Your task to perform on an android device: Go to Android settings Image 0: 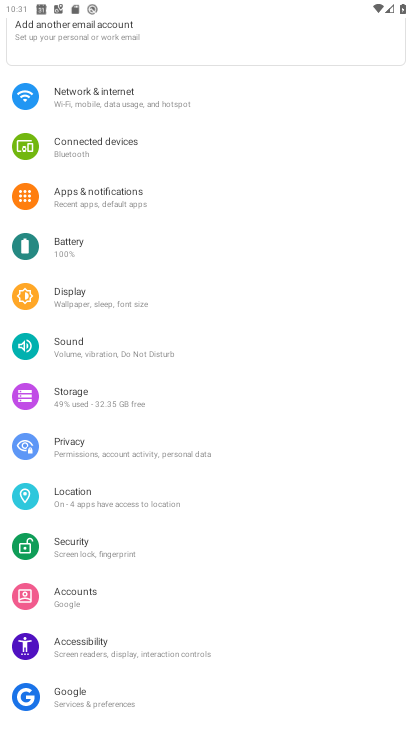
Step 0: press home button
Your task to perform on an android device: Go to Android settings Image 1: 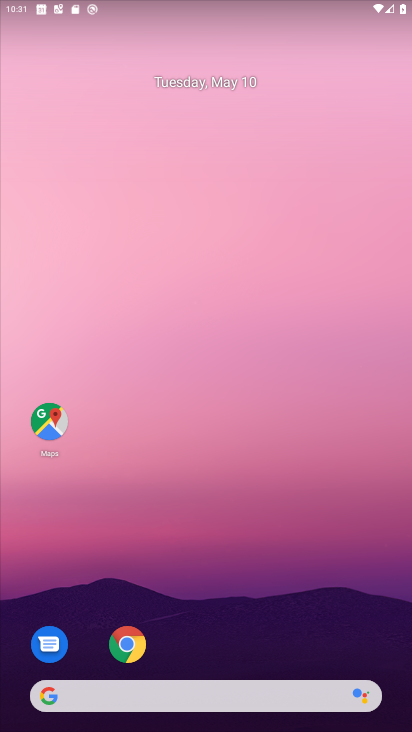
Step 1: drag from (317, 653) to (408, 267)
Your task to perform on an android device: Go to Android settings Image 2: 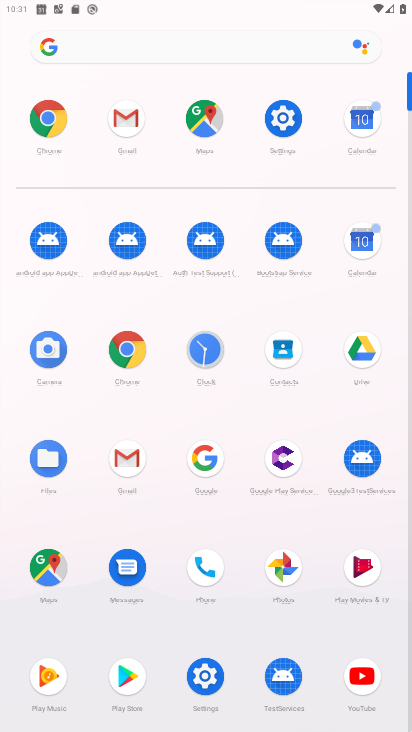
Step 2: click (290, 153)
Your task to perform on an android device: Go to Android settings Image 3: 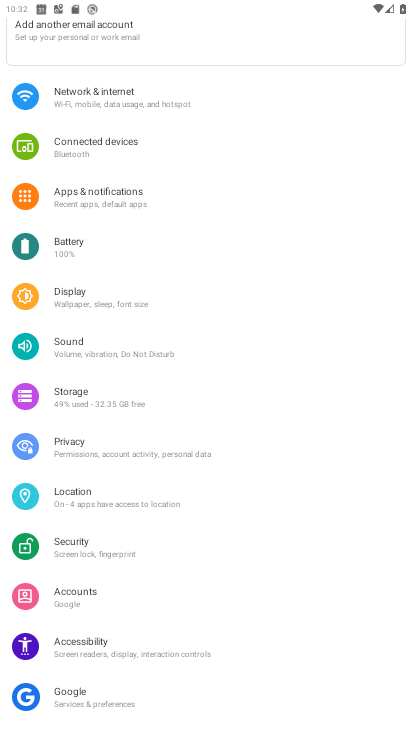
Step 3: drag from (288, 603) to (325, 42)
Your task to perform on an android device: Go to Android settings Image 4: 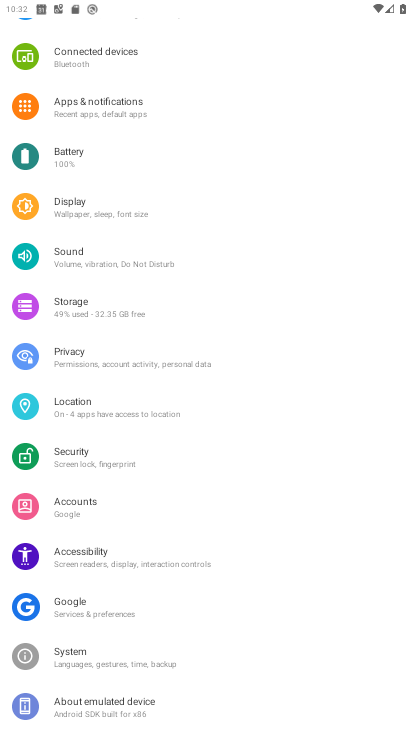
Step 4: click (183, 693)
Your task to perform on an android device: Go to Android settings Image 5: 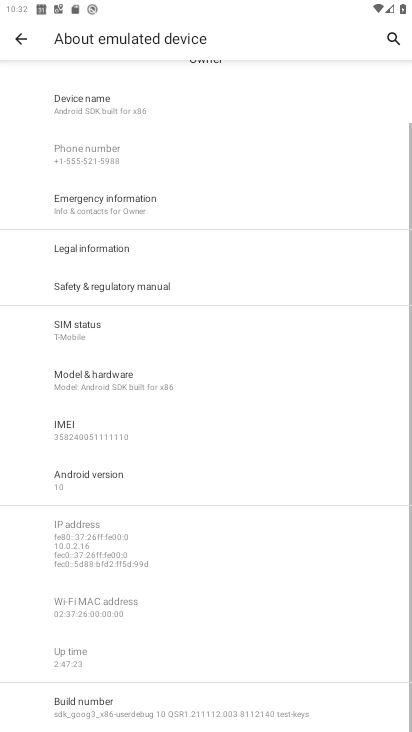
Step 5: click (193, 491)
Your task to perform on an android device: Go to Android settings Image 6: 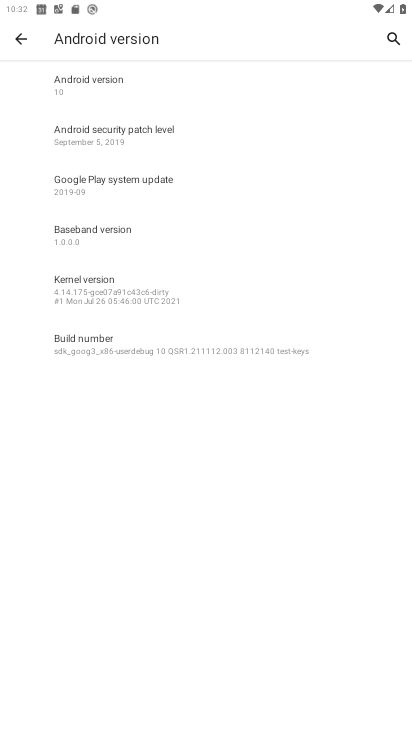
Step 6: task complete